Your task to perform on an android device: Open the calendar app, open the side menu, and click the "Day" option Image 0: 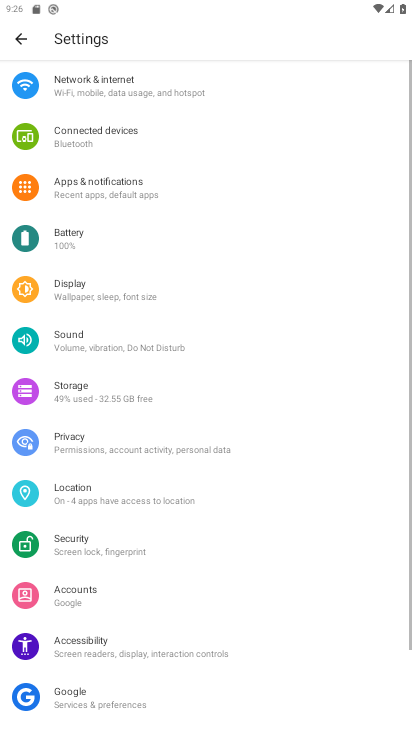
Step 0: press home button
Your task to perform on an android device: Open the calendar app, open the side menu, and click the "Day" option Image 1: 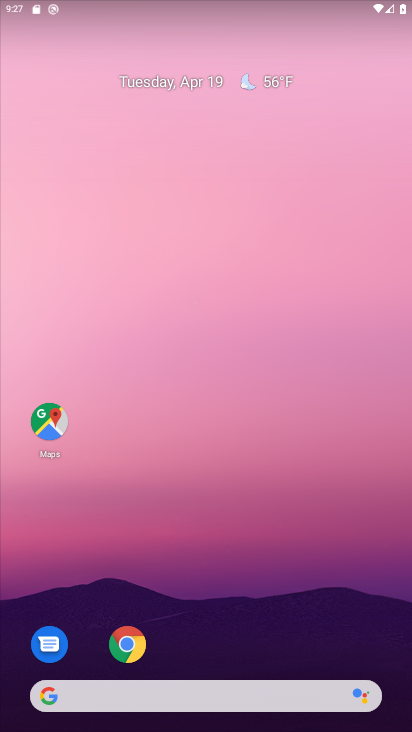
Step 1: drag from (197, 653) to (216, 172)
Your task to perform on an android device: Open the calendar app, open the side menu, and click the "Day" option Image 2: 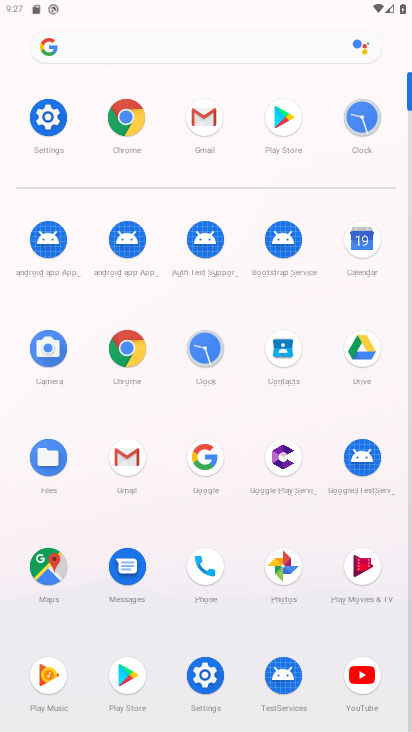
Step 2: click (358, 239)
Your task to perform on an android device: Open the calendar app, open the side menu, and click the "Day" option Image 3: 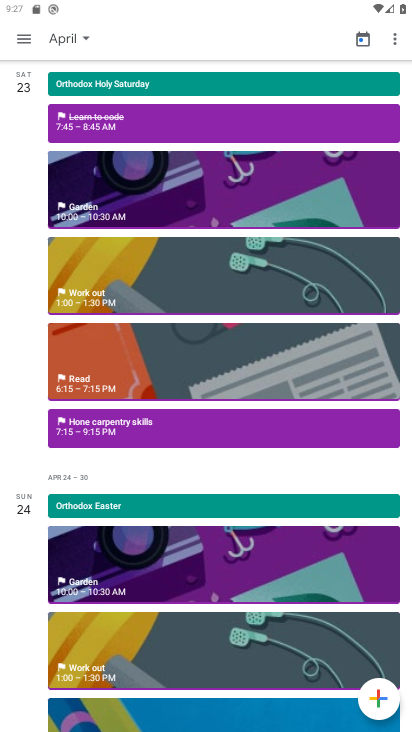
Step 3: click (25, 45)
Your task to perform on an android device: Open the calendar app, open the side menu, and click the "Day" option Image 4: 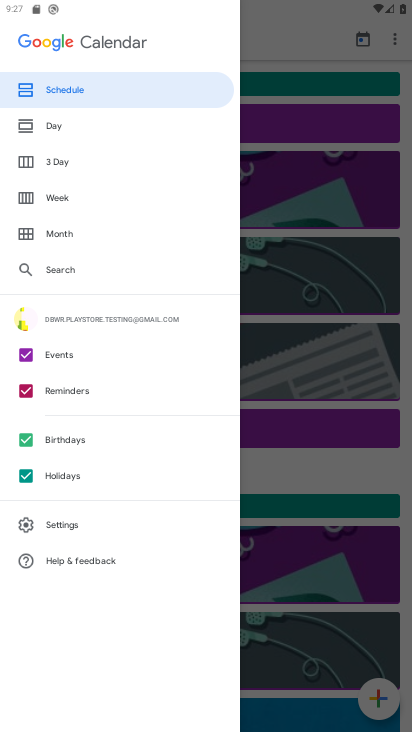
Step 4: click (57, 120)
Your task to perform on an android device: Open the calendar app, open the side menu, and click the "Day" option Image 5: 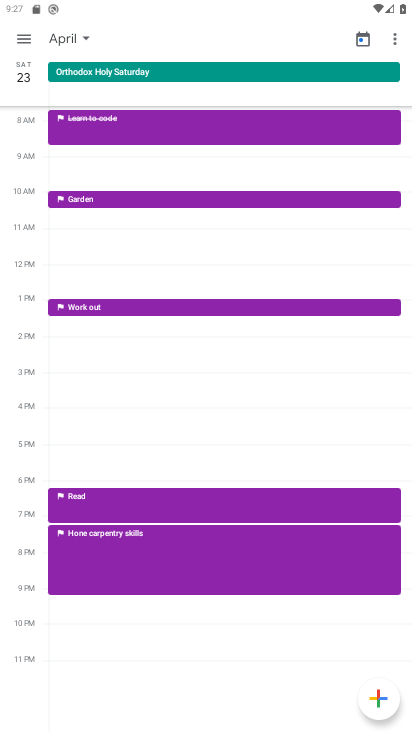
Step 5: task complete